Your task to perform on an android device: Open Wikipedia Image 0: 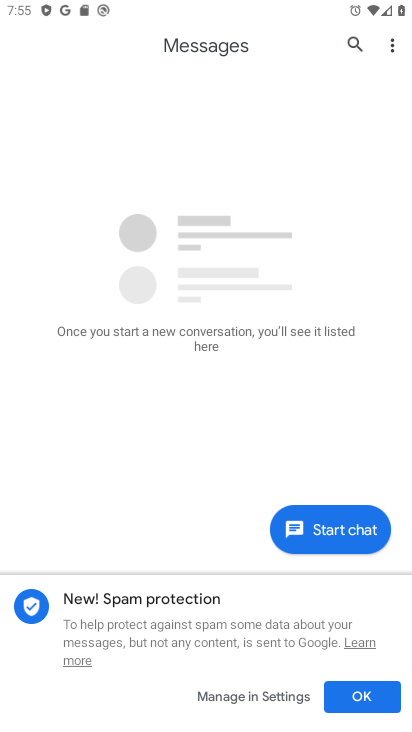
Step 0: press home button
Your task to perform on an android device: Open Wikipedia Image 1: 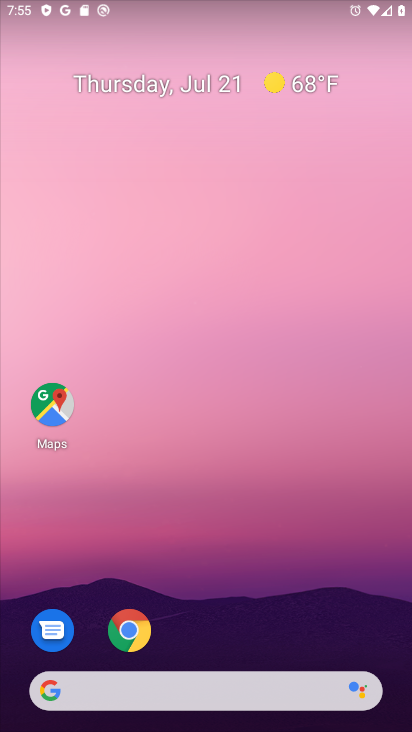
Step 1: drag from (337, 544) to (32, 354)
Your task to perform on an android device: Open Wikipedia Image 2: 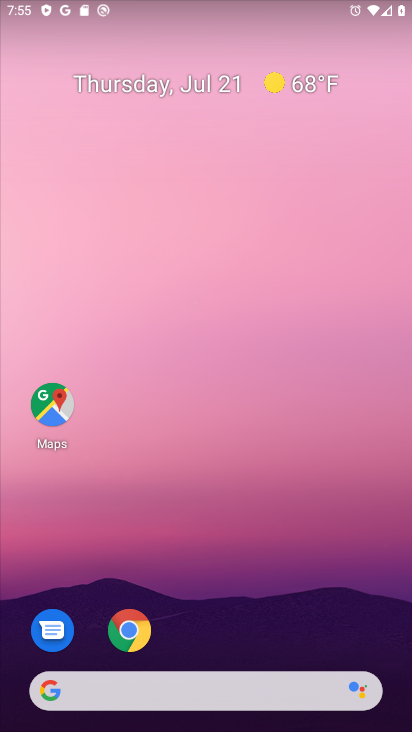
Step 2: drag from (320, 508) to (362, 100)
Your task to perform on an android device: Open Wikipedia Image 3: 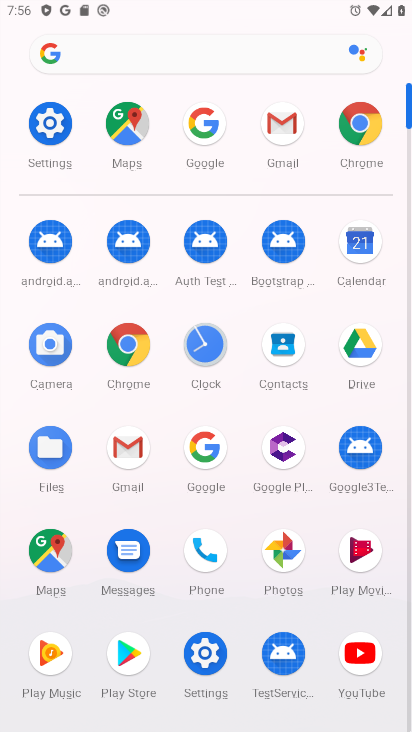
Step 3: click (364, 142)
Your task to perform on an android device: Open Wikipedia Image 4: 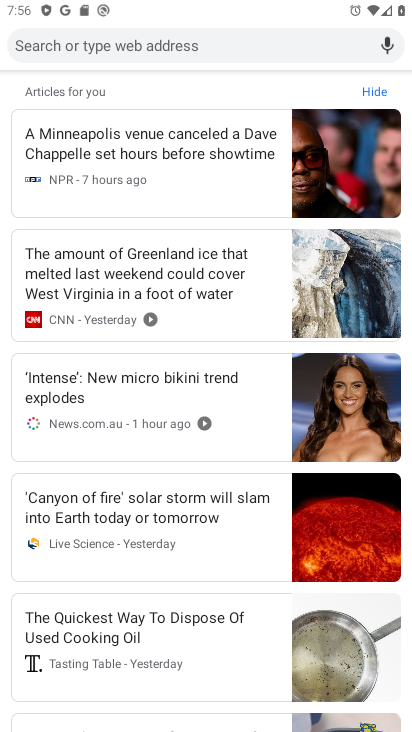
Step 4: drag from (258, 234) to (107, 711)
Your task to perform on an android device: Open Wikipedia Image 5: 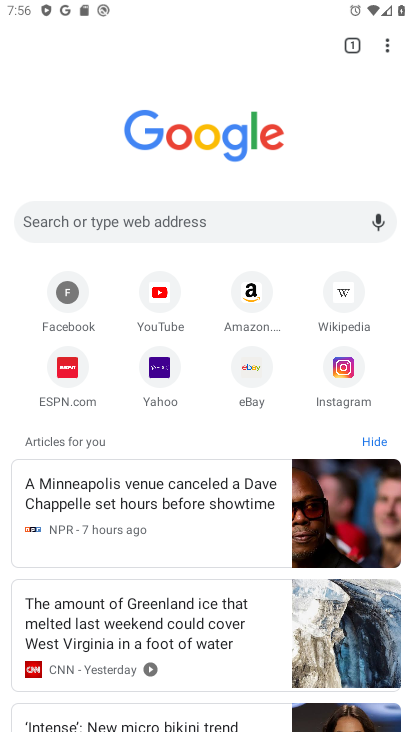
Step 5: click (345, 293)
Your task to perform on an android device: Open Wikipedia Image 6: 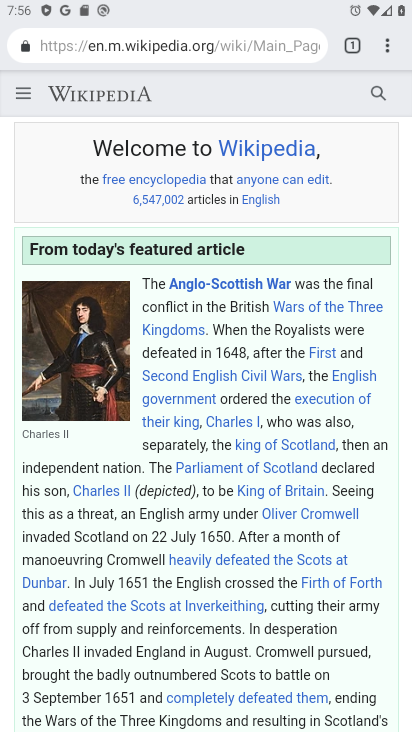
Step 6: task complete